Your task to perform on an android device: change your default location settings in chrome Image 0: 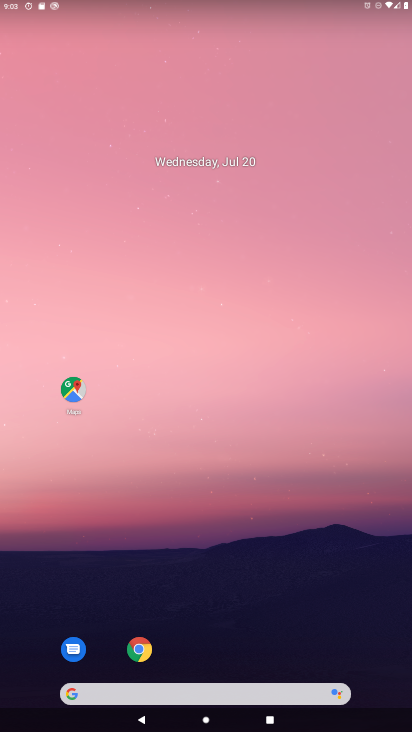
Step 0: click (140, 647)
Your task to perform on an android device: change your default location settings in chrome Image 1: 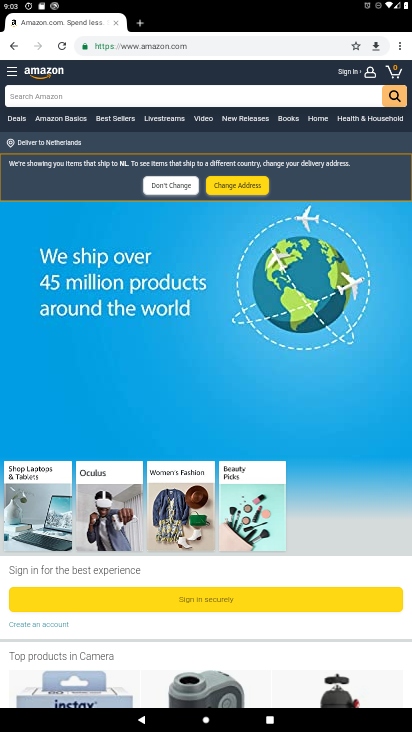
Step 1: click (399, 47)
Your task to perform on an android device: change your default location settings in chrome Image 2: 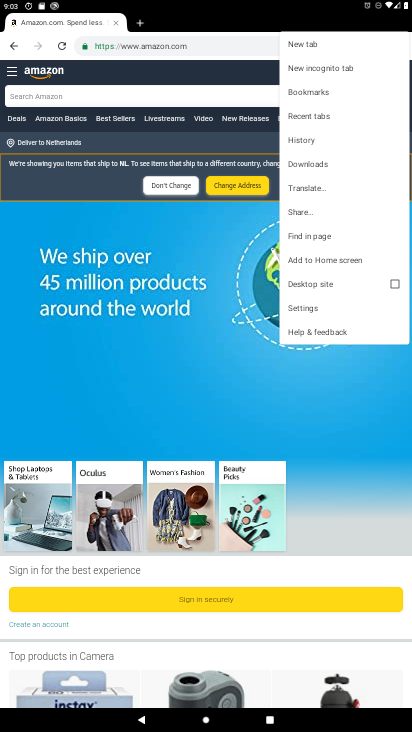
Step 2: click (308, 307)
Your task to perform on an android device: change your default location settings in chrome Image 3: 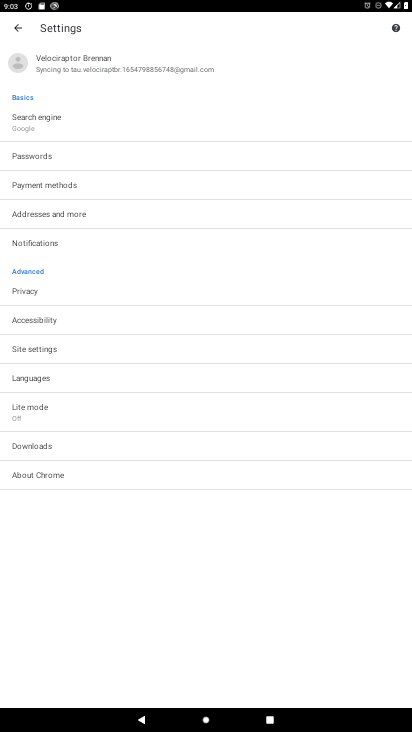
Step 3: click (38, 351)
Your task to perform on an android device: change your default location settings in chrome Image 4: 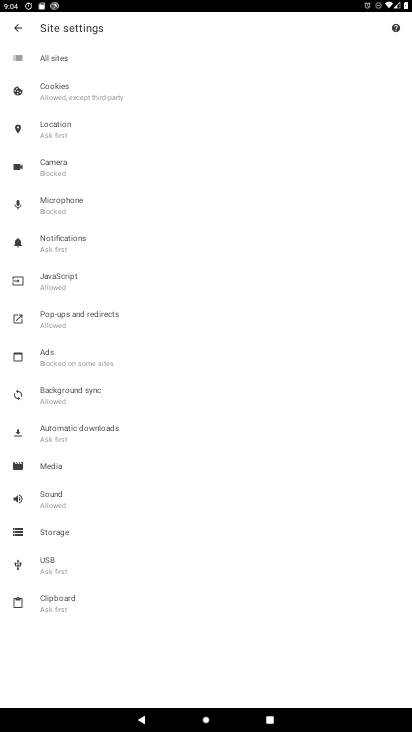
Step 4: click (58, 131)
Your task to perform on an android device: change your default location settings in chrome Image 5: 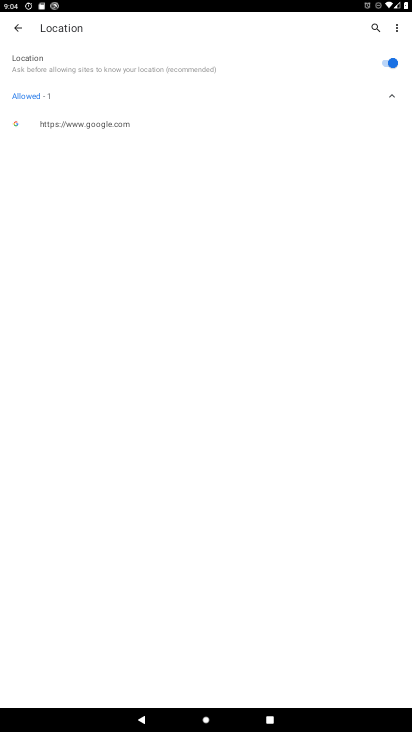
Step 5: click (388, 61)
Your task to perform on an android device: change your default location settings in chrome Image 6: 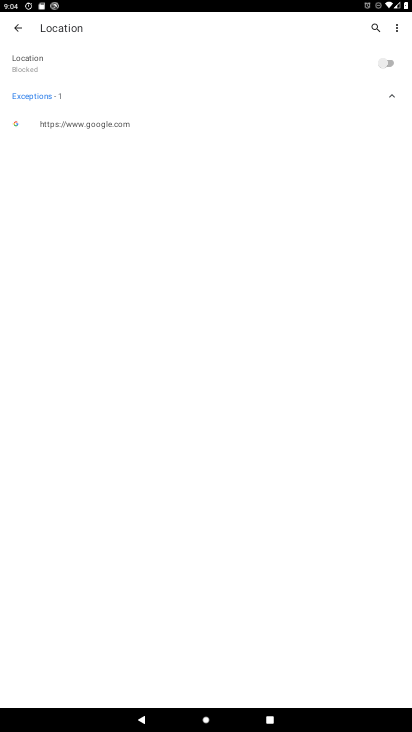
Step 6: task complete